Your task to perform on an android device: change the clock display to analog Image 0: 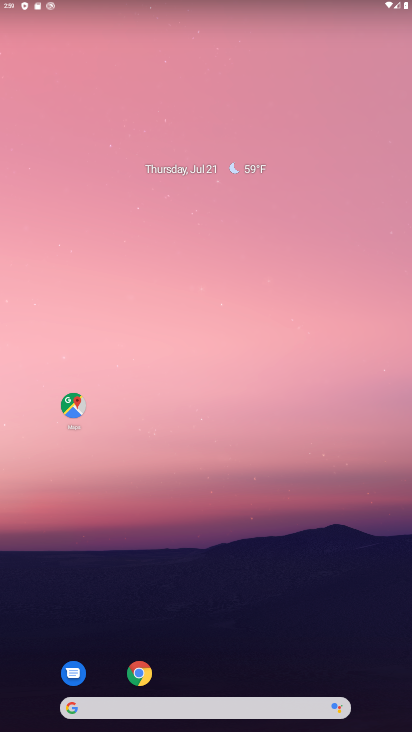
Step 0: drag from (394, 694) to (372, 208)
Your task to perform on an android device: change the clock display to analog Image 1: 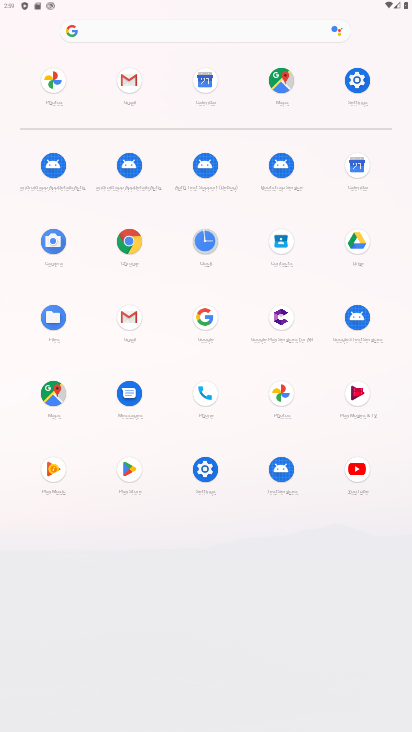
Step 1: click (204, 243)
Your task to perform on an android device: change the clock display to analog Image 2: 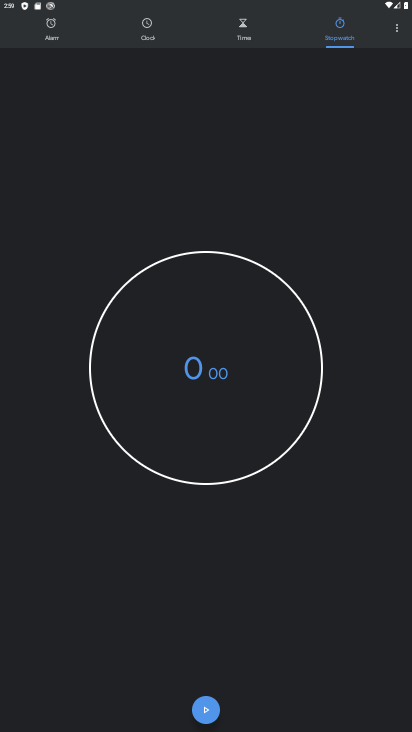
Step 2: click (398, 34)
Your task to perform on an android device: change the clock display to analog Image 3: 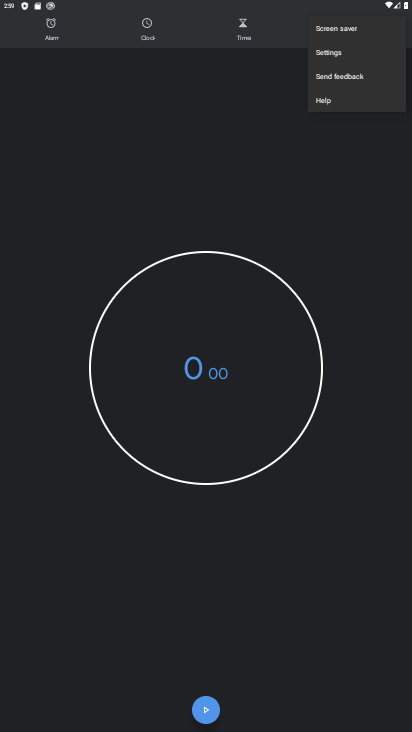
Step 3: click (334, 53)
Your task to perform on an android device: change the clock display to analog Image 4: 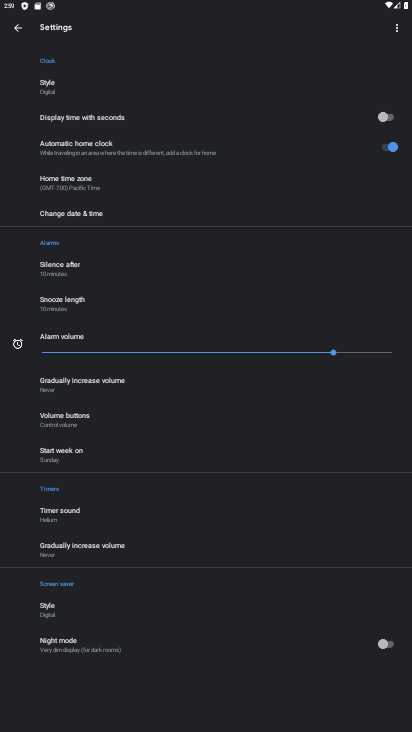
Step 4: click (51, 93)
Your task to perform on an android device: change the clock display to analog Image 5: 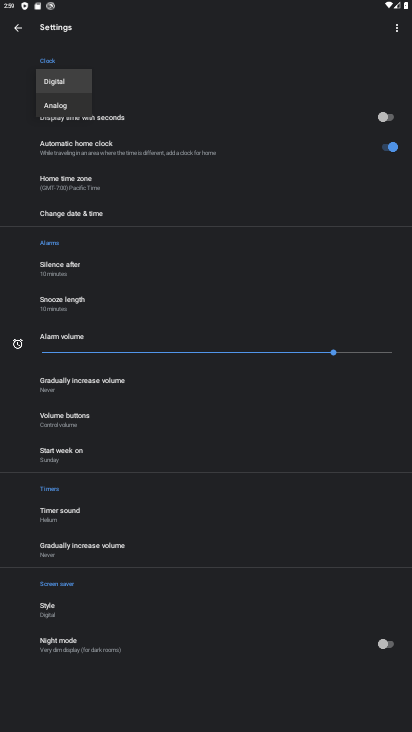
Step 5: click (57, 105)
Your task to perform on an android device: change the clock display to analog Image 6: 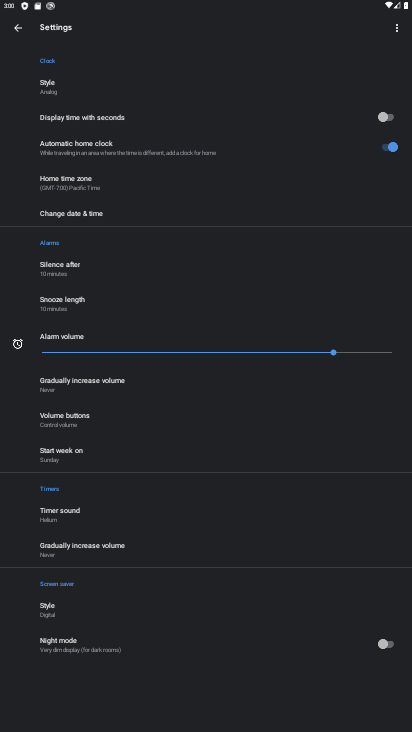
Step 6: task complete